Your task to perform on an android device: Open Youtube and go to the subscriptions tab Image 0: 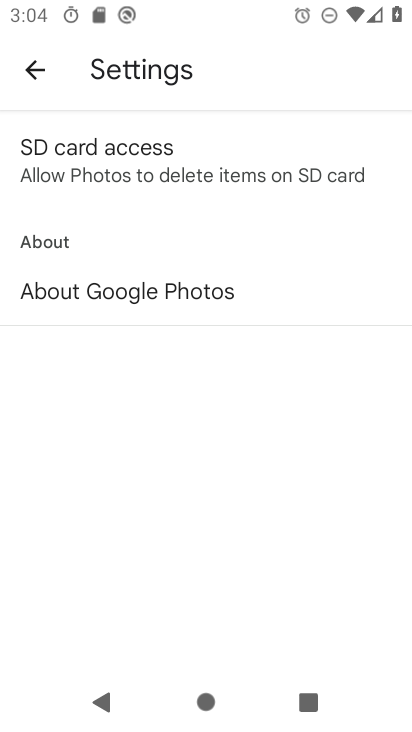
Step 0: press home button
Your task to perform on an android device: Open Youtube and go to the subscriptions tab Image 1: 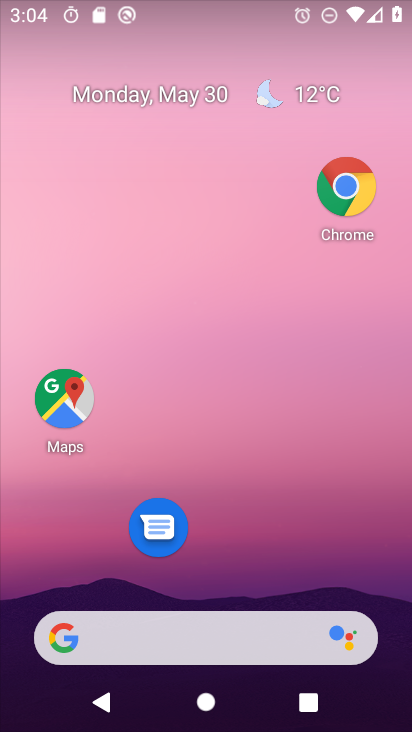
Step 1: drag from (222, 570) to (177, 5)
Your task to perform on an android device: Open Youtube and go to the subscriptions tab Image 2: 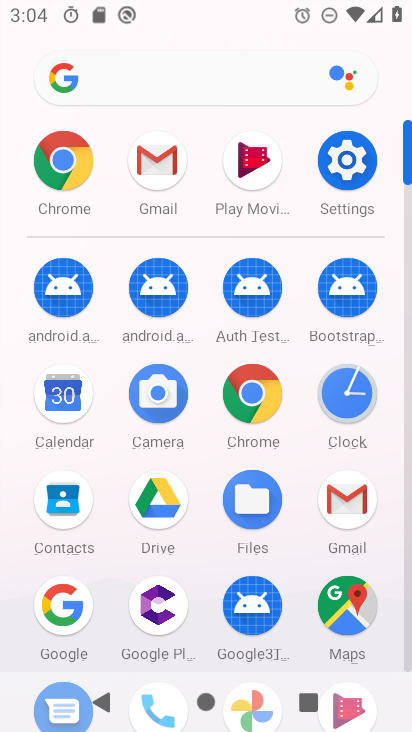
Step 2: drag from (200, 503) to (200, 83)
Your task to perform on an android device: Open Youtube and go to the subscriptions tab Image 3: 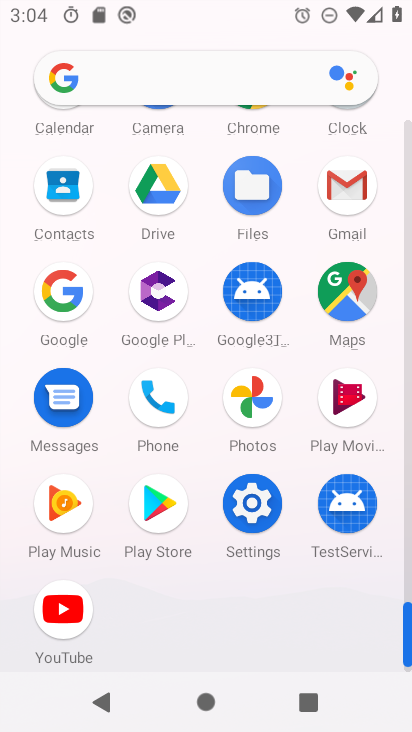
Step 3: click (77, 610)
Your task to perform on an android device: Open Youtube and go to the subscriptions tab Image 4: 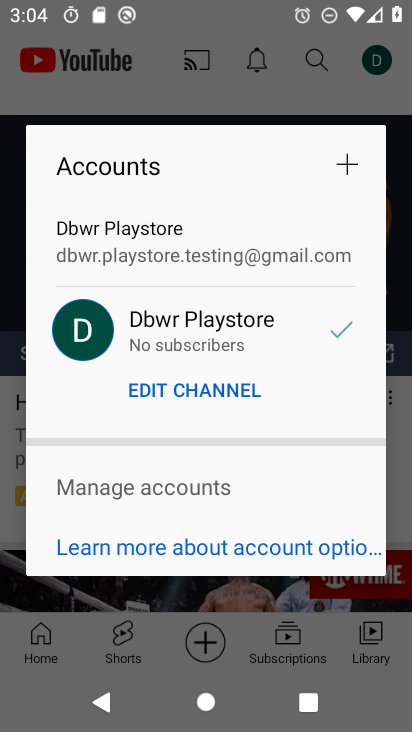
Step 4: click (290, 629)
Your task to perform on an android device: Open Youtube and go to the subscriptions tab Image 5: 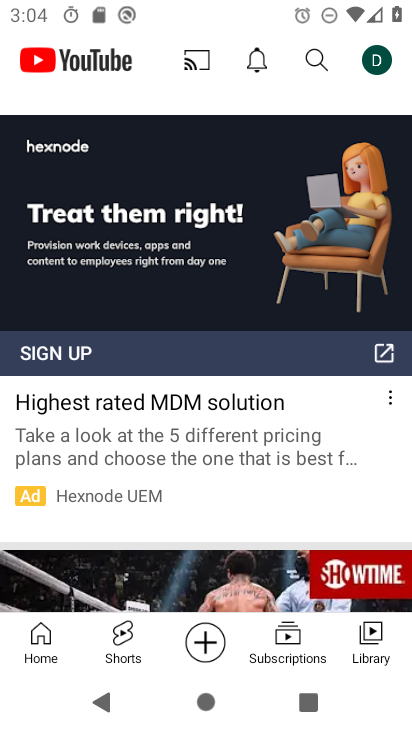
Step 5: click (288, 636)
Your task to perform on an android device: Open Youtube and go to the subscriptions tab Image 6: 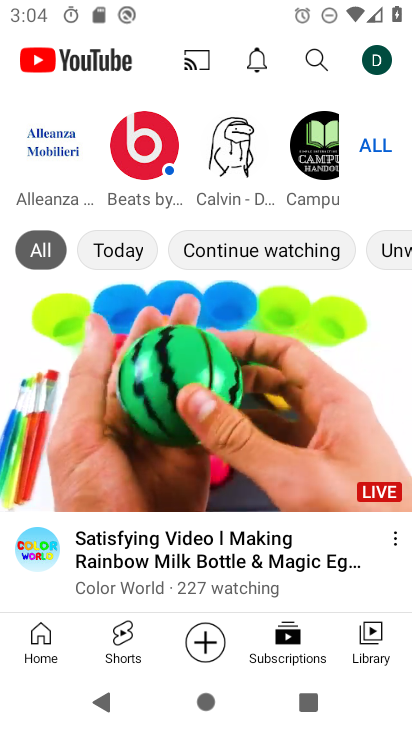
Step 6: drag from (230, 527) to (232, 156)
Your task to perform on an android device: Open Youtube and go to the subscriptions tab Image 7: 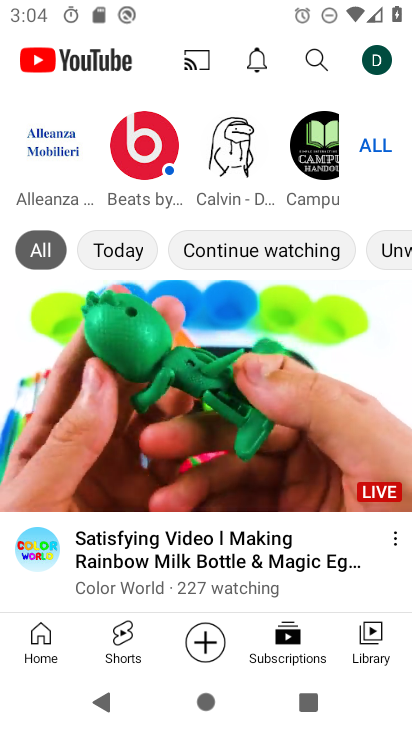
Step 7: click (293, 642)
Your task to perform on an android device: Open Youtube and go to the subscriptions tab Image 8: 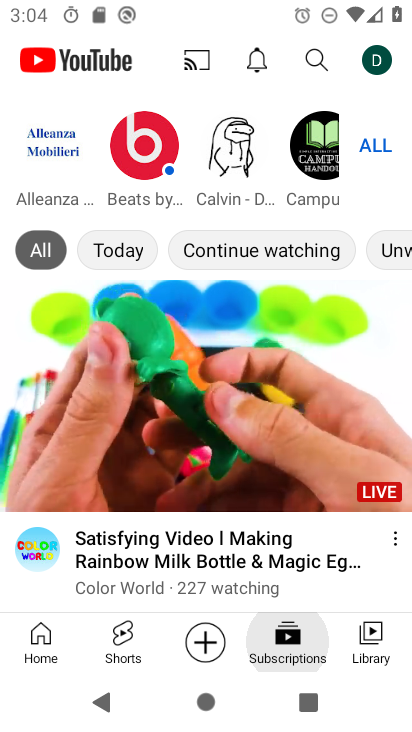
Step 8: task complete